Your task to perform on an android device: turn on priority inbox in the gmail app Image 0: 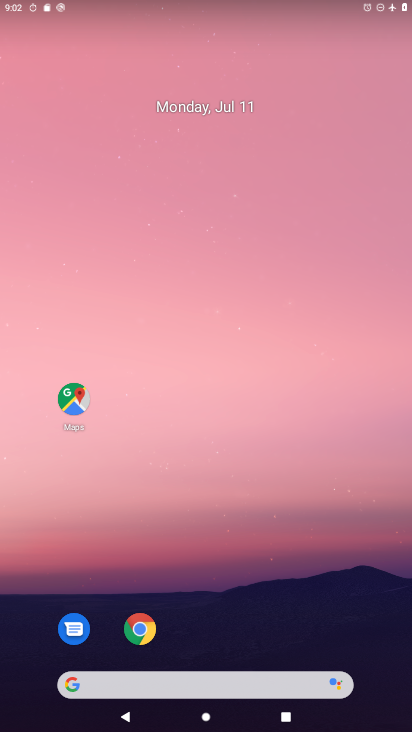
Step 0: drag from (215, 637) to (179, 120)
Your task to perform on an android device: turn on priority inbox in the gmail app Image 1: 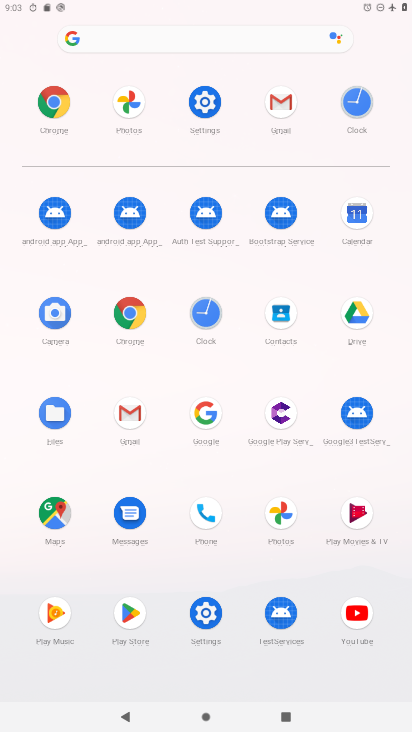
Step 1: click (279, 101)
Your task to perform on an android device: turn on priority inbox in the gmail app Image 2: 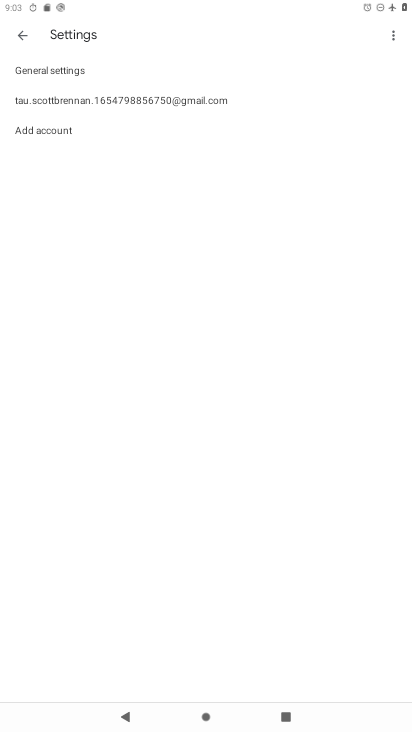
Step 2: click (116, 98)
Your task to perform on an android device: turn on priority inbox in the gmail app Image 3: 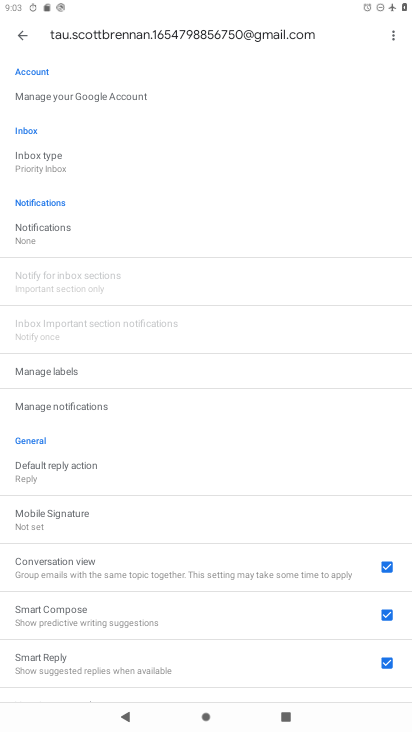
Step 3: task complete